Your task to perform on an android device: delete location history Image 0: 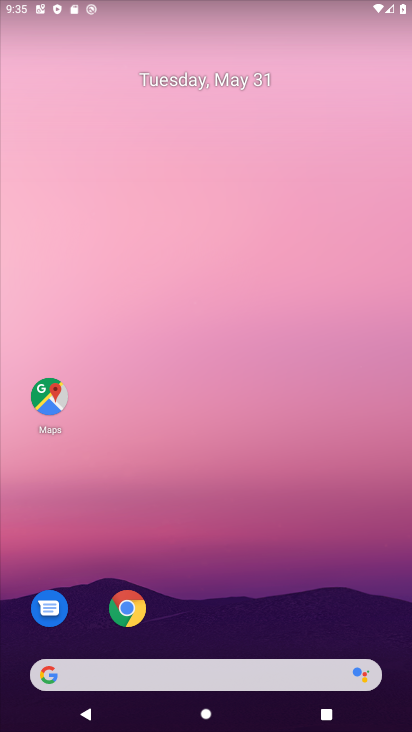
Step 0: task complete